Your task to perform on an android device: Do I have any events tomorrow? Image 0: 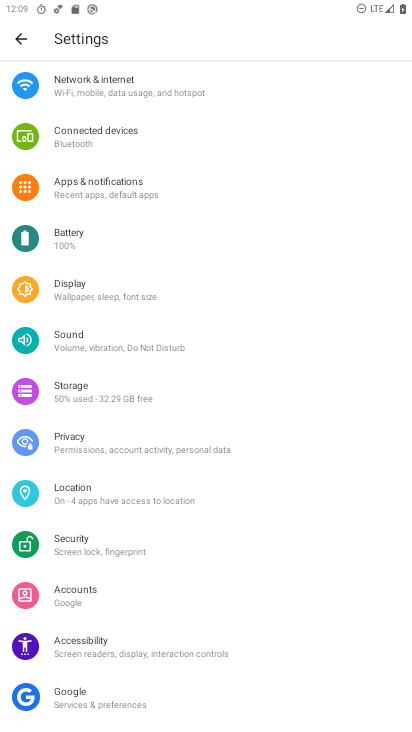
Step 0: press home button
Your task to perform on an android device: Do I have any events tomorrow? Image 1: 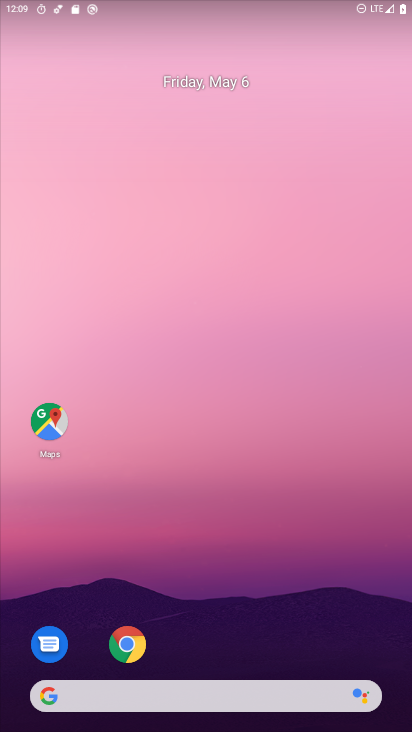
Step 1: drag from (361, 626) to (317, 216)
Your task to perform on an android device: Do I have any events tomorrow? Image 2: 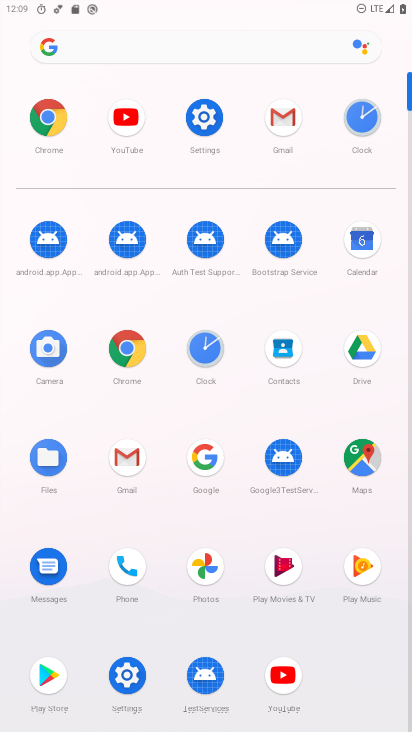
Step 2: click (360, 247)
Your task to perform on an android device: Do I have any events tomorrow? Image 3: 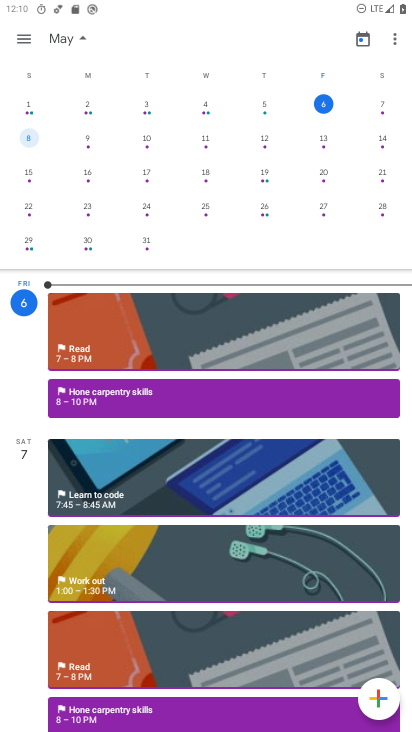
Step 3: click (380, 105)
Your task to perform on an android device: Do I have any events tomorrow? Image 4: 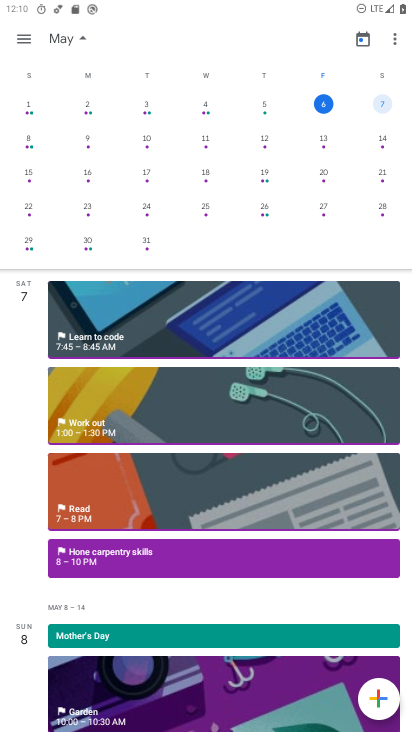
Step 4: task complete